Your task to perform on an android device: turn on wifi Image 0: 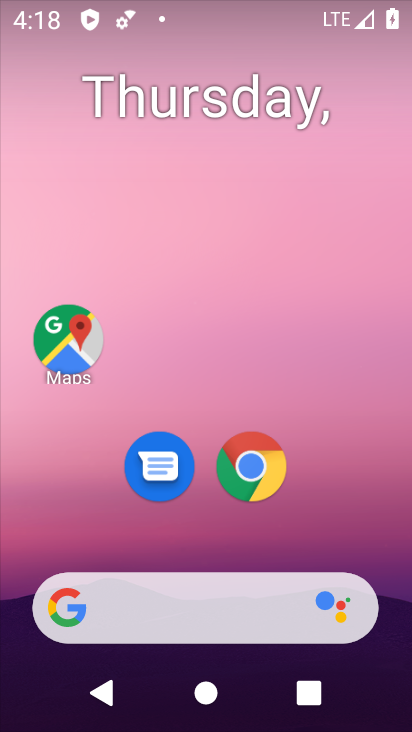
Step 0: drag from (357, 387) to (361, 31)
Your task to perform on an android device: turn on wifi Image 1: 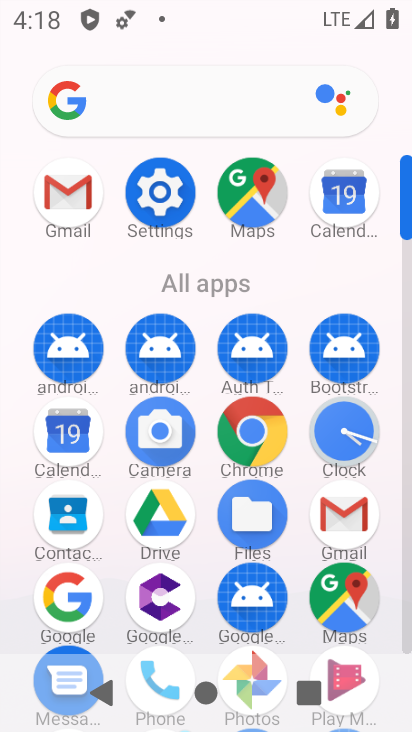
Step 1: click (147, 200)
Your task to perform on an android device: turn on wifi Image 2: 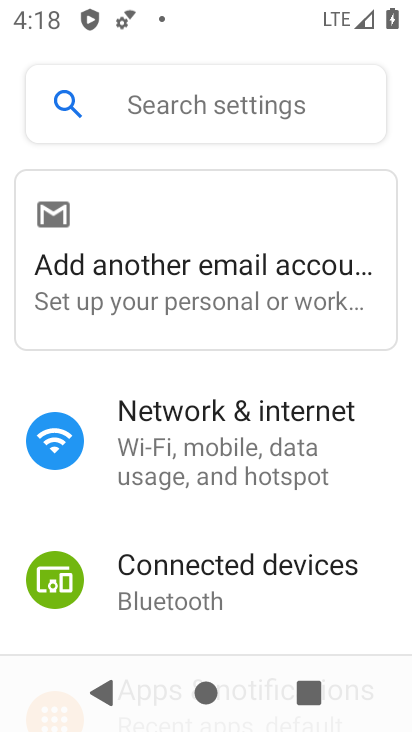
Step 2: click (220, 457)
Your task to perform on an android device: turn on wifi Image 3: 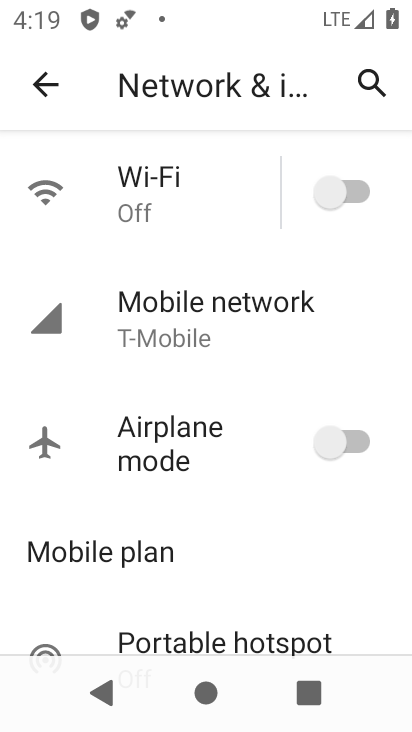
Step 3: click (345, 206)
Your task to perform on an android device: turn on wifi Image 4: 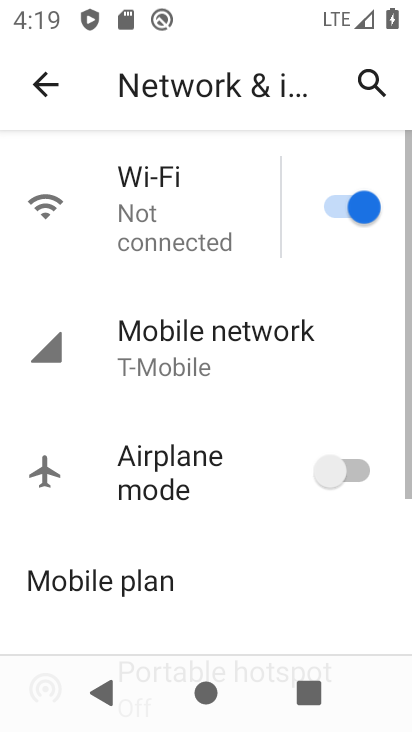
Step 4: task complete